Your task to perform on an android device: turn off javascript in the chrome app Image 0: 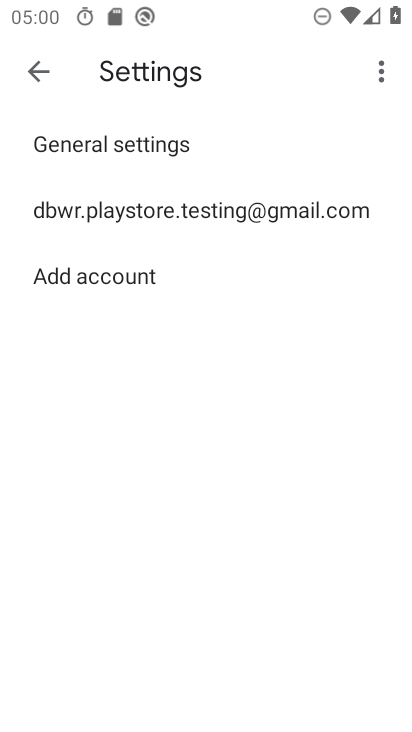
Step 0: press home button
Your task to perform on an android device: turn off javascript in the chrome app Image 1: 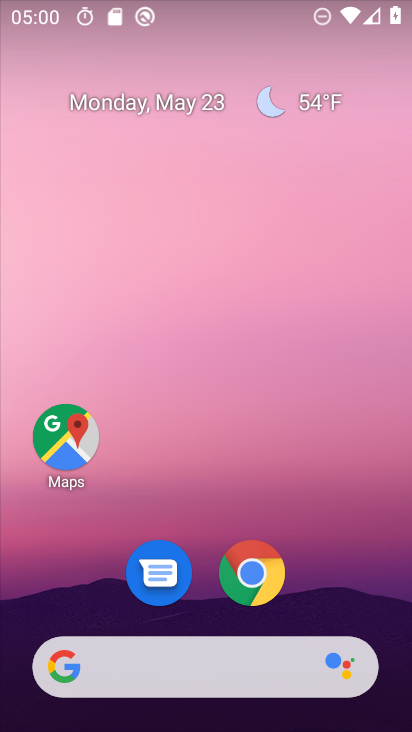
Step 1: click (269, 574)
Your task to perform on an android device: turn off javascript in the chrome app Image 2: 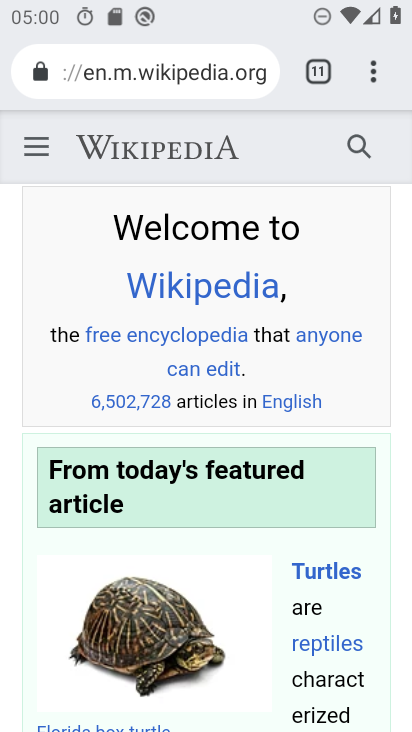
Step 2: click (382, 55)
Your task to perform on an android device: turn off javascript in the chrome app Image 3: 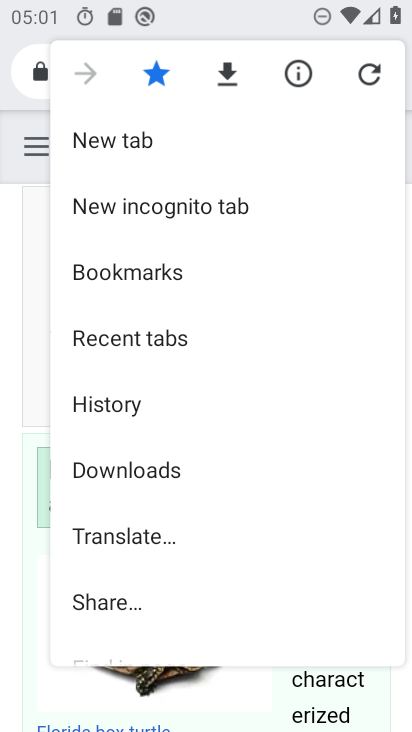
Step 3: drag from (163, 580) to (199, 252)
Your task to perform on an android device: turn off javascript in the chrome app Image 4: 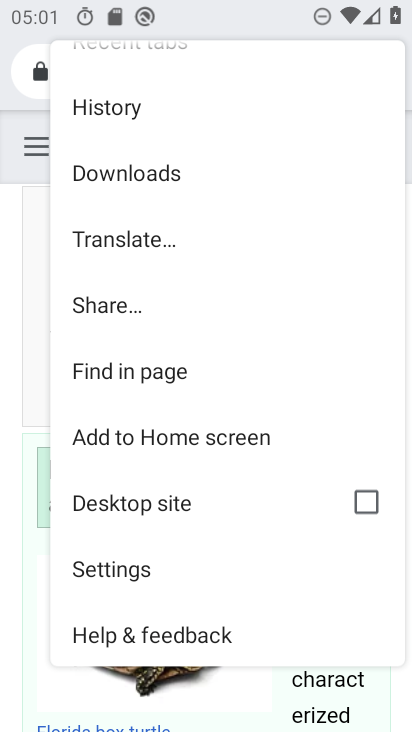
Step 4: click (126, 566)
Your task to perform on an android device: turn off javascript in the chrome app Image 5: 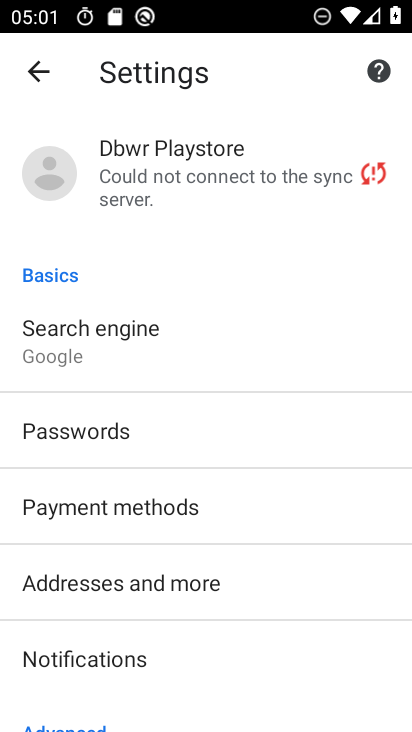
Step 5: drag from (267, 628) to (285, 271)
Your task to perform on an android device: turn off javascript in the chrome app Image 6: 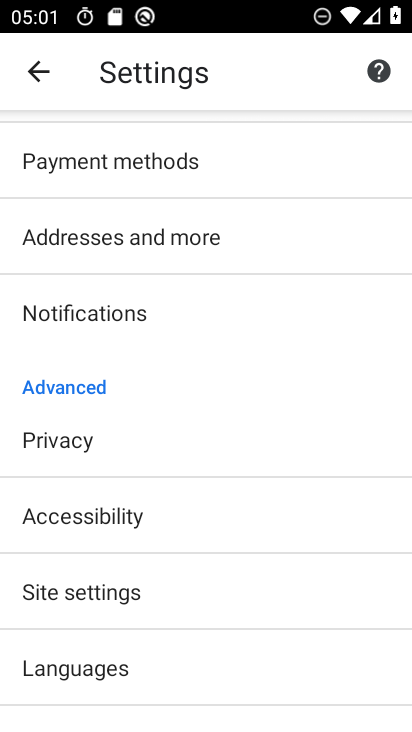
Step 6: click (123, 588)
Your task to perform on an android device: turn off javascript in the chrome app Image 7: 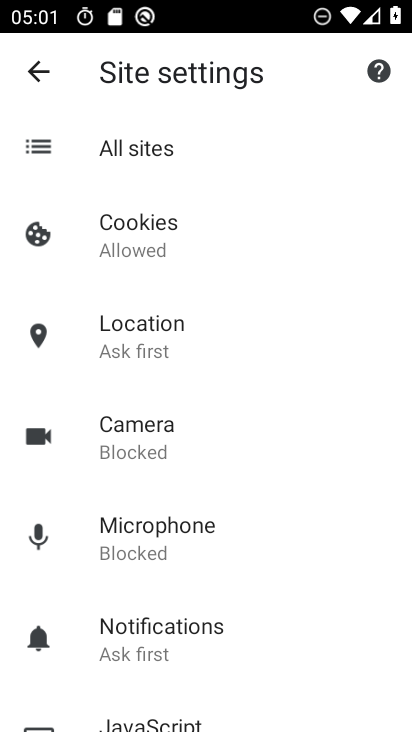
Step 7: drag from (227, 604) to (264, 273)
Your task to perform on an android device: turn off javascript in the chrome app Image 8: 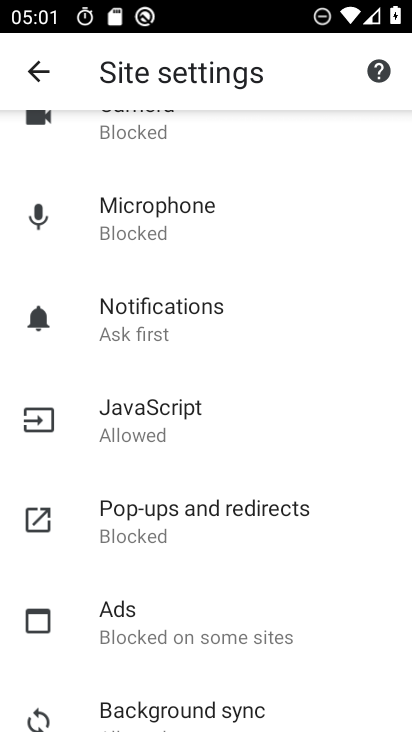
Step 8: click (164, 413)
Your task to perform on an android device: turn off javascript in the chrome app Image 9: 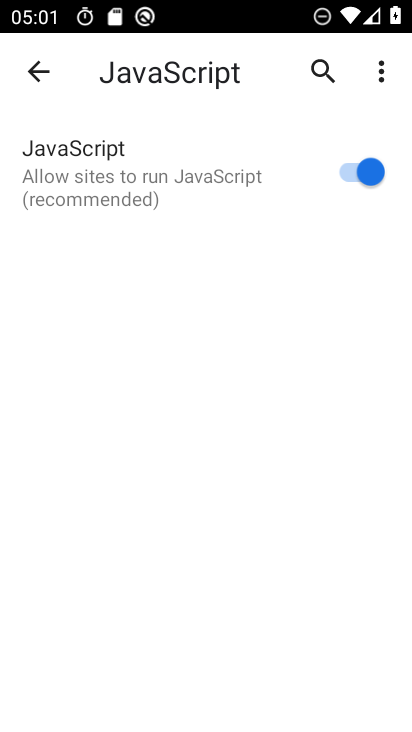
Step 9: click (348, 167)
Your task to perform on an android device: turn off javascript in the chrome app Image 10: 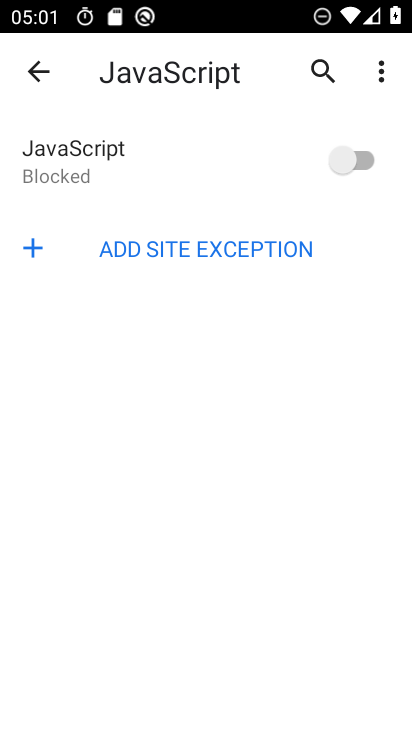
Step 10: task complete